Your task to perform on an android device: Go to Maps Image 0: 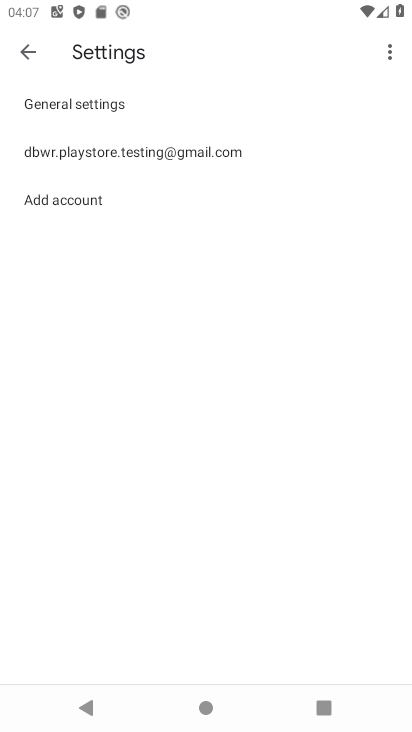
Step 0: press home button
Your task to perform on an android device: Go to Maps Image 1: 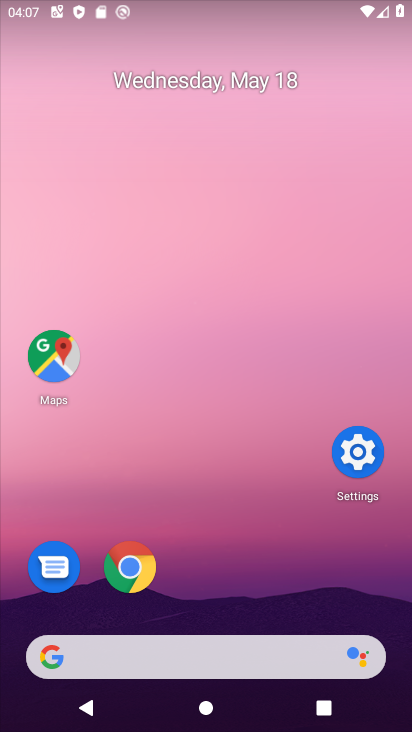
Step 1: click (45, 356)
Your task to perform on an android device: Go to Maps Image 2: 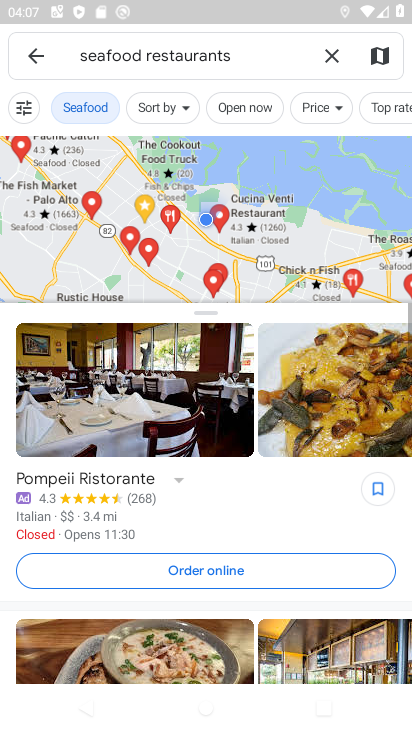
Step 2: click (29, 52)
Your task to perform on an android device: Go to Maps Image 3: 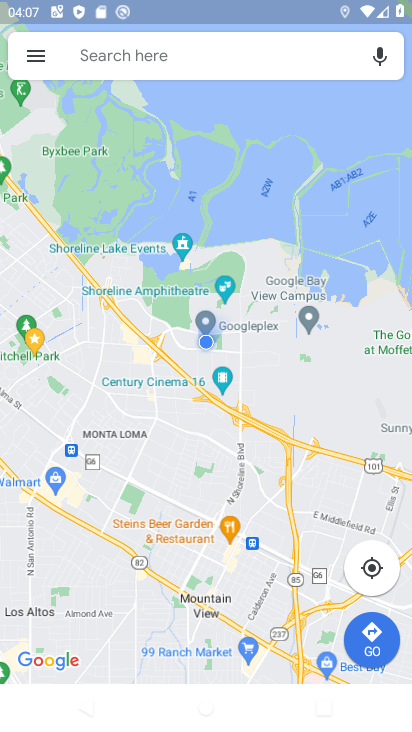
Step 3: task complete